Your task to perform on an android device: install app "Facebook Messenger" Image 0: 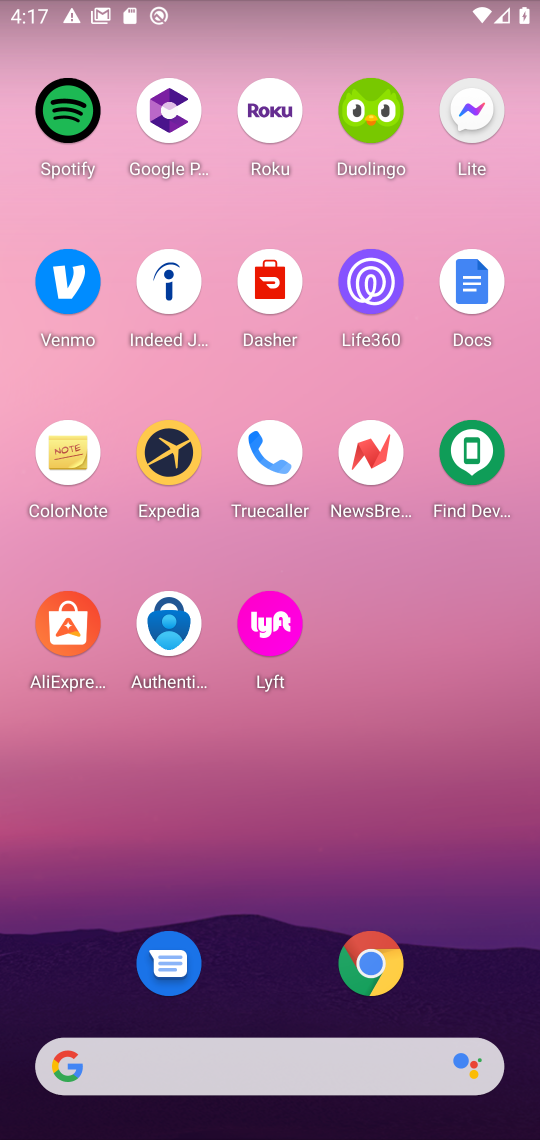
Step 0: drag from (277, 1026) to (242, 78)
Your task to perform on an android device: install app "Facebook Messenger" Image 1: 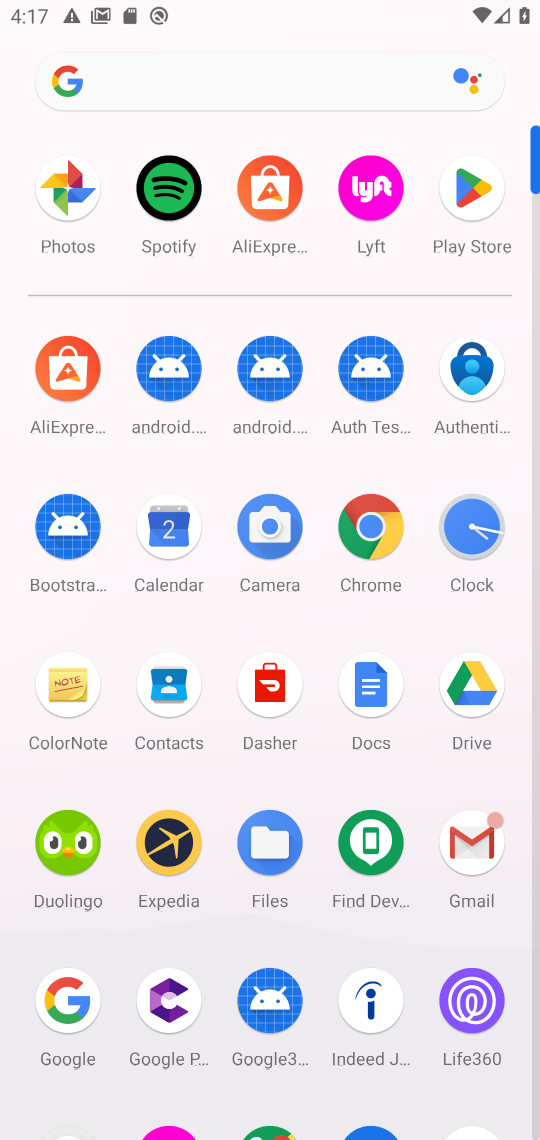
Step 1: click (469, 171)
Your task to perform on an android device: install app "Facebook Messenger" Image 2: 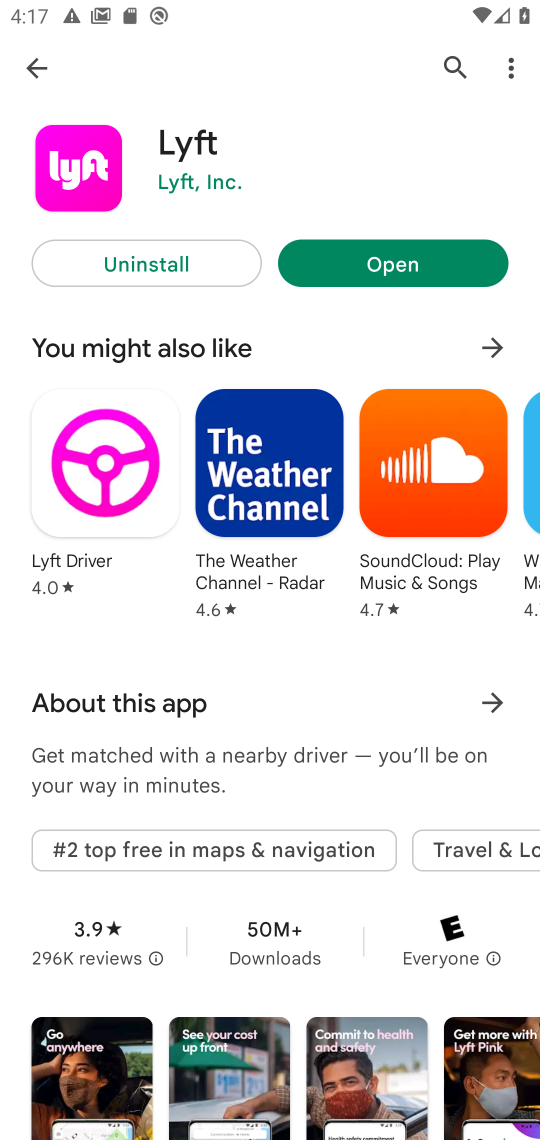
Step 2: click (460, 60)
Your task to perform on an android device: install app "Facebook Messenger" Image 3: 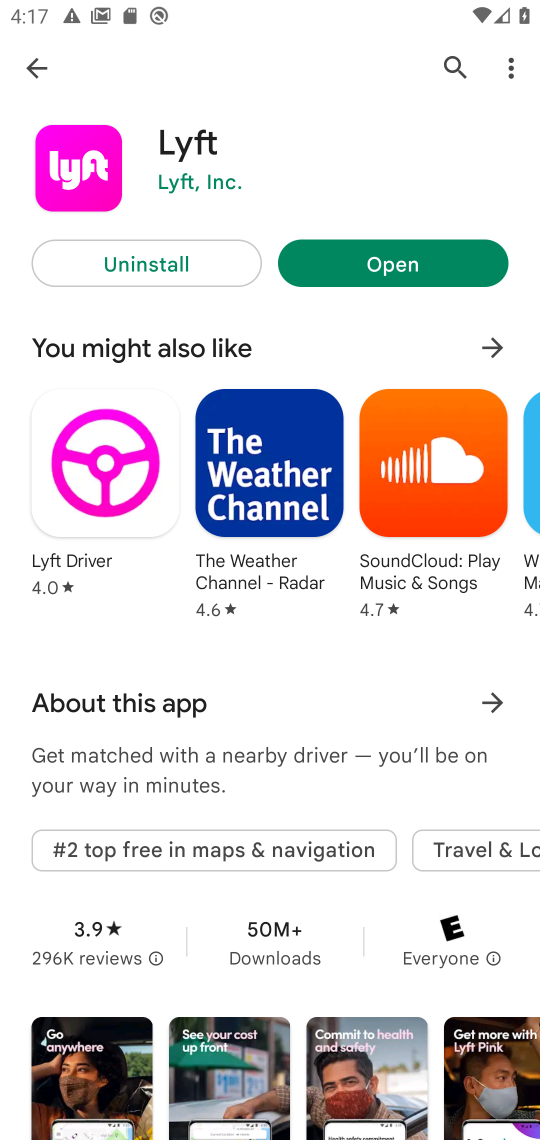
Step 3: click (449, 61)
Your task to perform on an android device: install app "Facebook Messenger" Image 4: 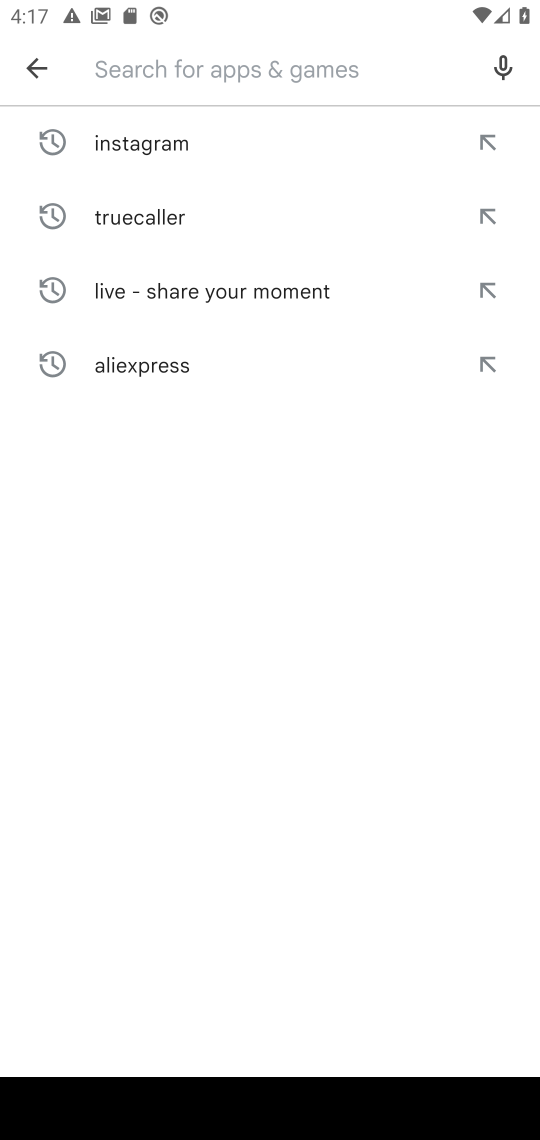
Step 4: type "Facebook Messenger"
Your task to perform on an android device: install app "Facebook Messenger" Image 5: 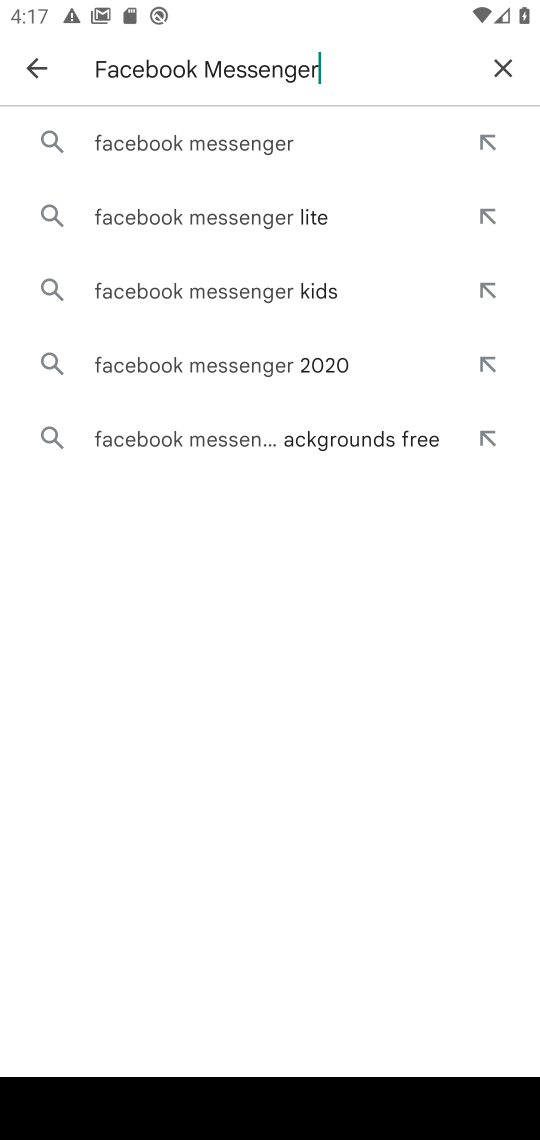
Step 5: click (153, 140)
Your task to perform on an android device: install app "Facebook Messenger" Image 6: 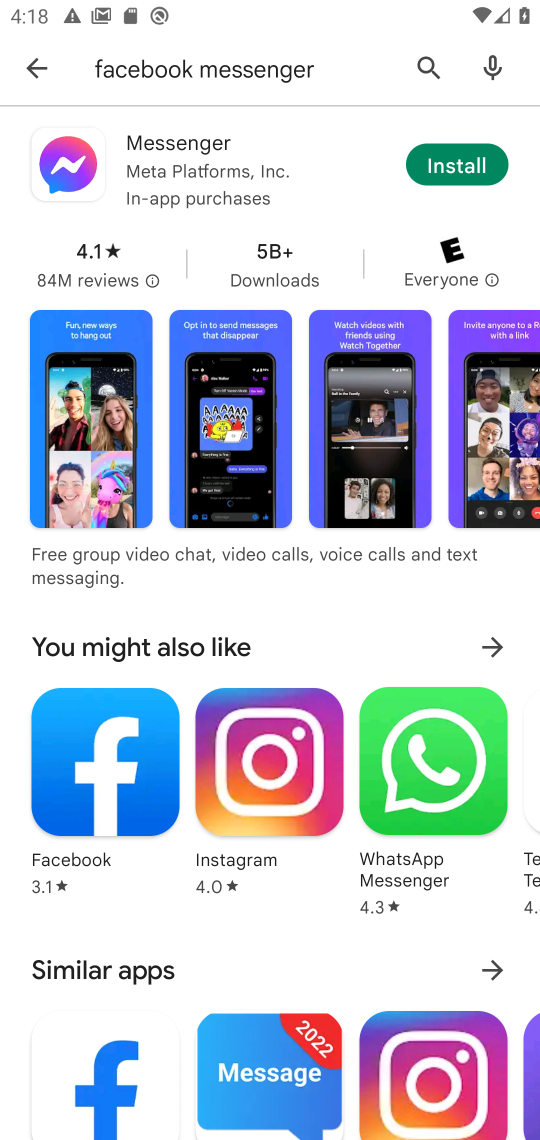
Step 6: click (484, 170)
Your task to perform on an android device: install app "Facebook Messenger" Image 7: 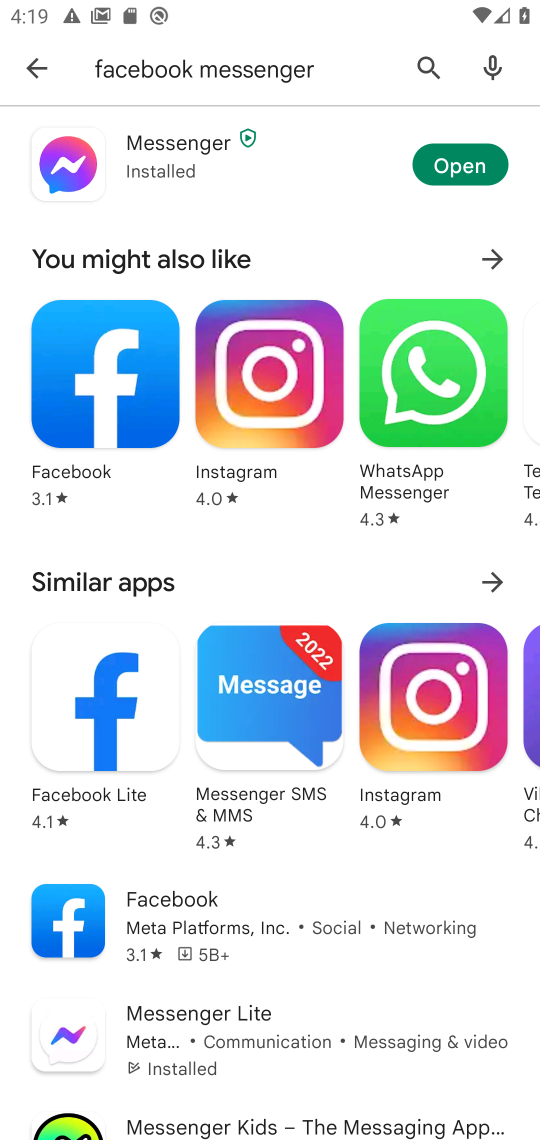
Step 7: click (460, 169)
Your task to perform on an android device: install app "Facebook Messenger" Image 8: 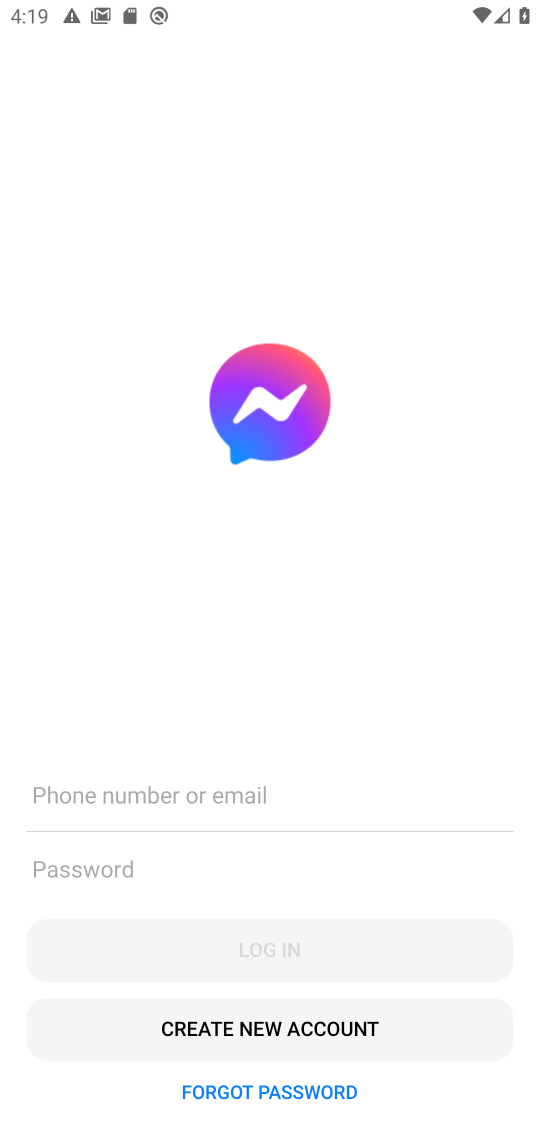
Step 8: task complete